Your task to perform on an android device: Open sound settings Image 0: 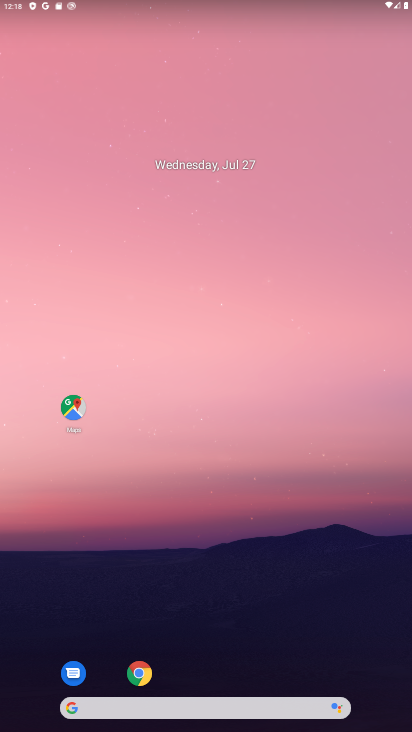
Step 0: drag from (229, 680) to (225, 21)
Your task to perform on an android device: Open sound settings Image 1: 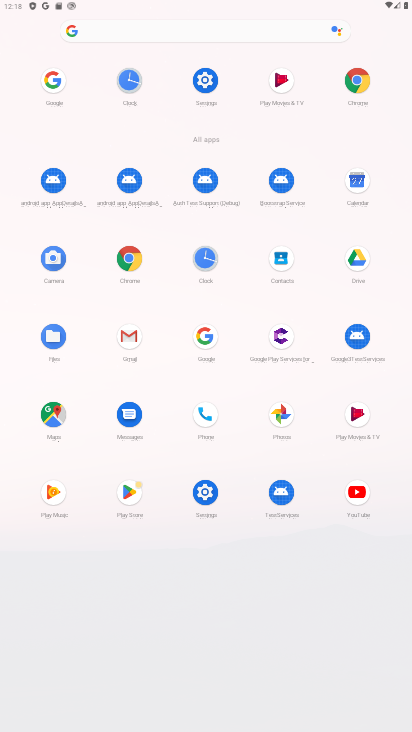
Step 1: click (207, 82)
Your task to perform on an android device: Open sound settings Image 2: 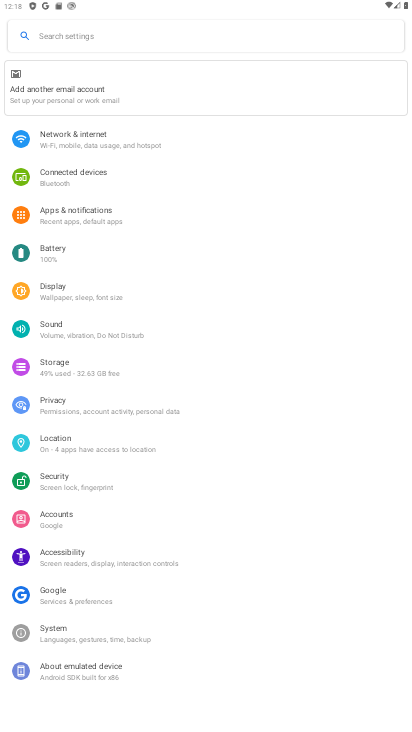
Step 2: click (42, 334)
Your task to perform on an android device: Open sound settings Image 3: 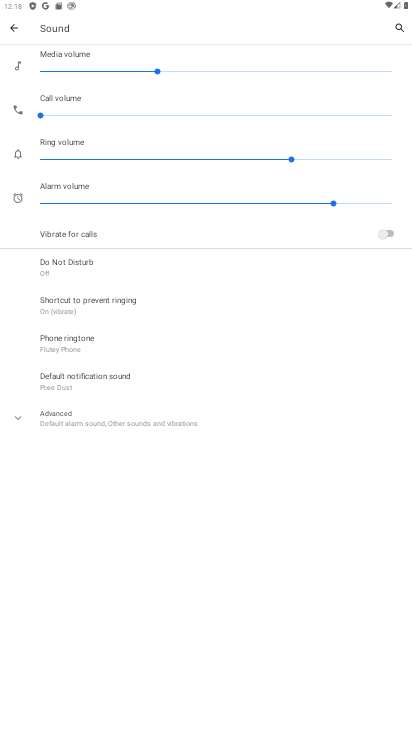
Step 3: task complete